Your task to perform on an android device: Go to location settings Image 0: 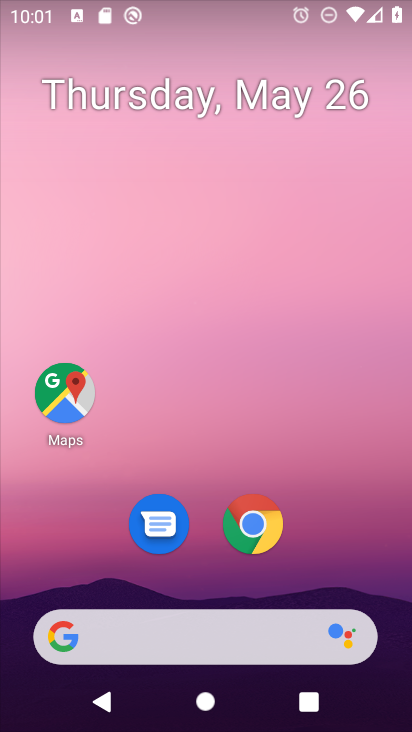
Step 0: drag from (226, 460) to (236, 0)
Your task to perform on an android device: Go to location settings Image 1: 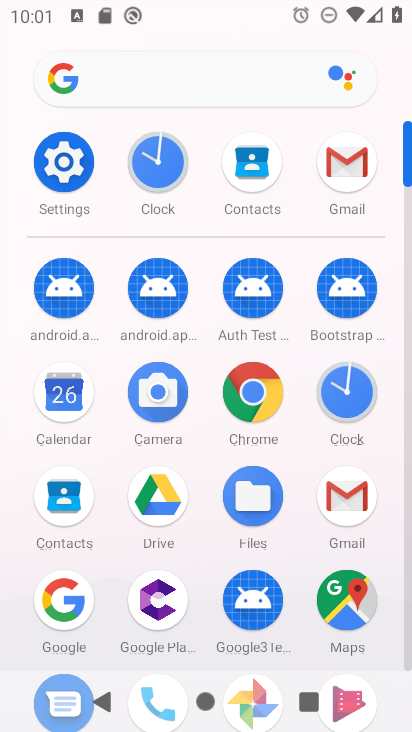
Step 1: click (67, 167)
Your task to perform on an android device: Go to location settings Image 2: 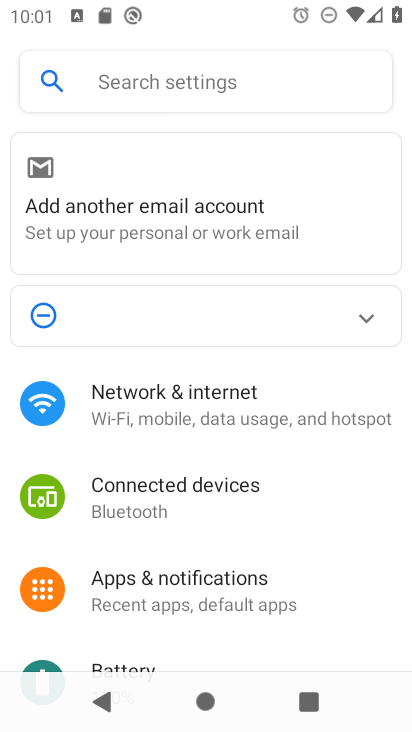
Step 2: drag from (211, 527) to (237, 274)
Your task to perform on an android device: Go to location settings Image 3: 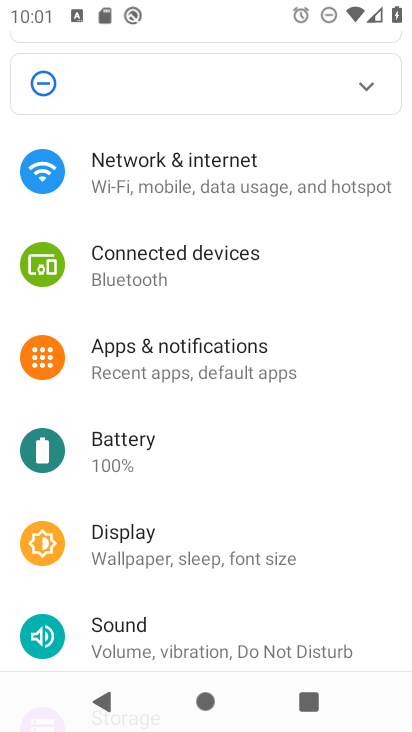
Step 3: click (252, 178)
Your task to perform on an android device: Go to location settings Image 4: 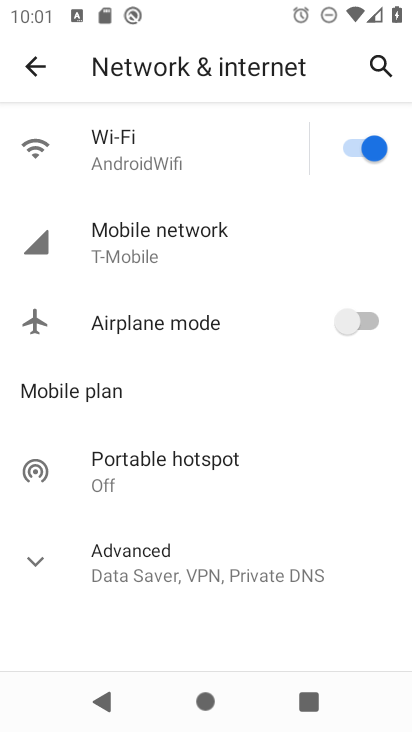
Step 4: click (31, 63)
Your task to perform on an android device: Go to location settings Image 5: 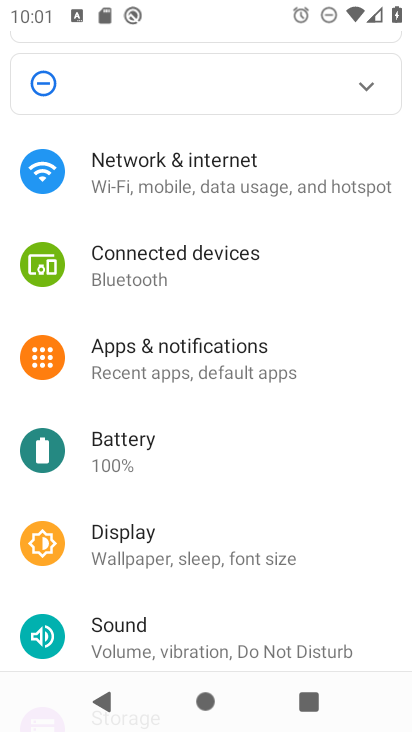
Step 5: drag from (242, 553) to (232, 115)
Your task to perform on an android device: Go to location settings Image 6: 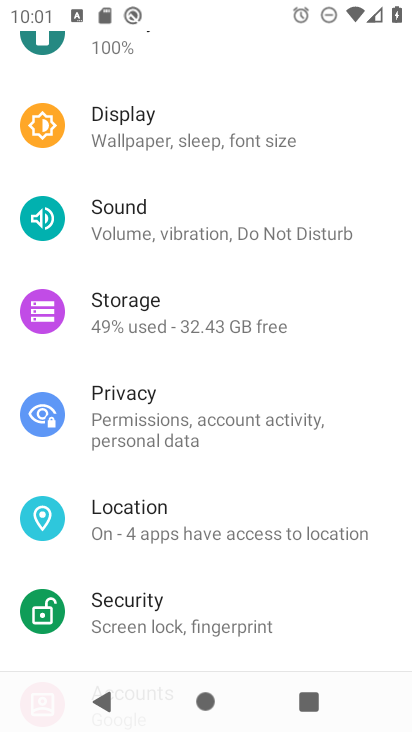
Step 6: click (223, 526)
Your task to perform on an android device: Go to location settings Image 7: 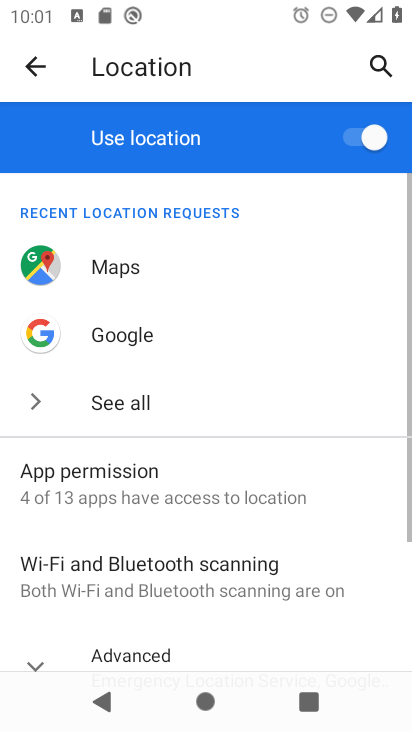
Step 7: task complete